Your task to perform on an android device: turn off data saver in the chrome app Image 0: 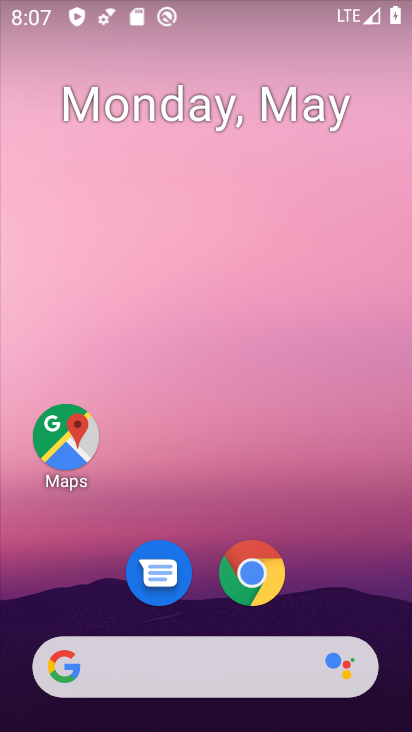
Step 0: click (281, 573)
Your task to perform on an android device: turn off data saver in the chrome app Image 1: 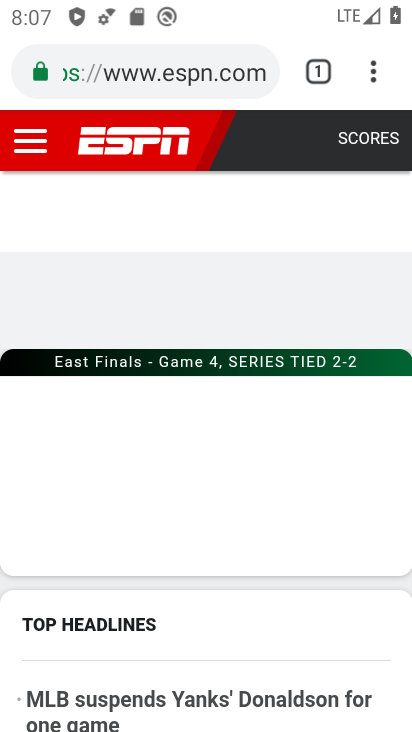
Step 1: drag from (386, 76) to (131, 559)
Your task to perform on an android device: turn off data saver in the chrome app Image 2: 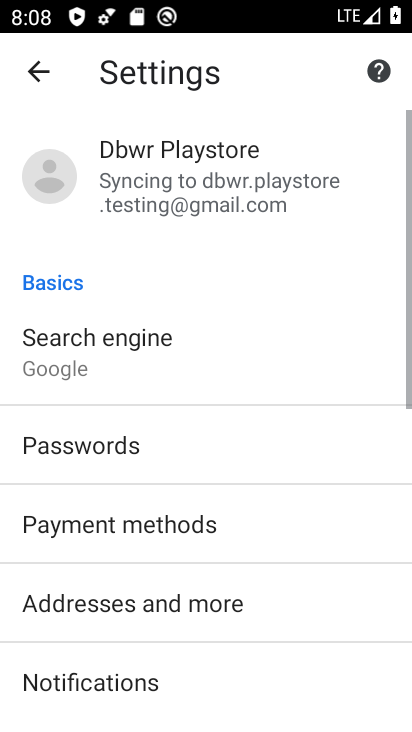
Step 2: drag from (143, 617) to (222, 176)
Your task to perform on an android device: turn off data saver in the chrome app Image 3: 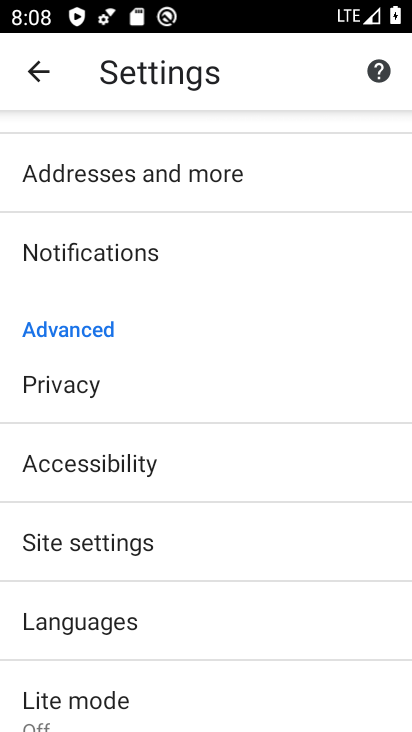
Step 3: click (159, 709)
Your task to perform on an android device: turn off data saver in the chrome app Image 4: 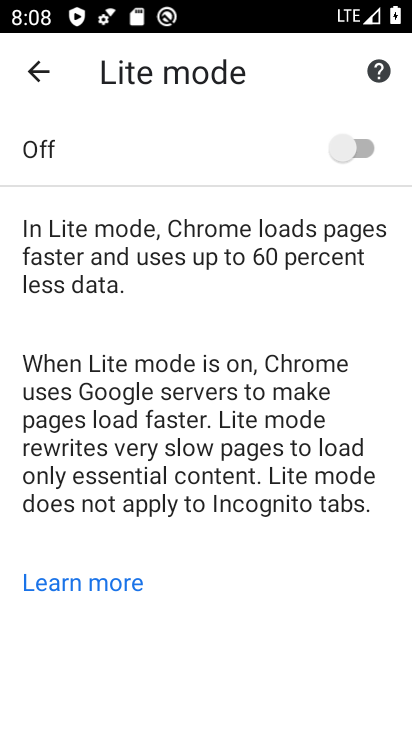
Step 4: task complete